Your task to perform on an android device: Search for flights from NYC to Mexico city Image 0: 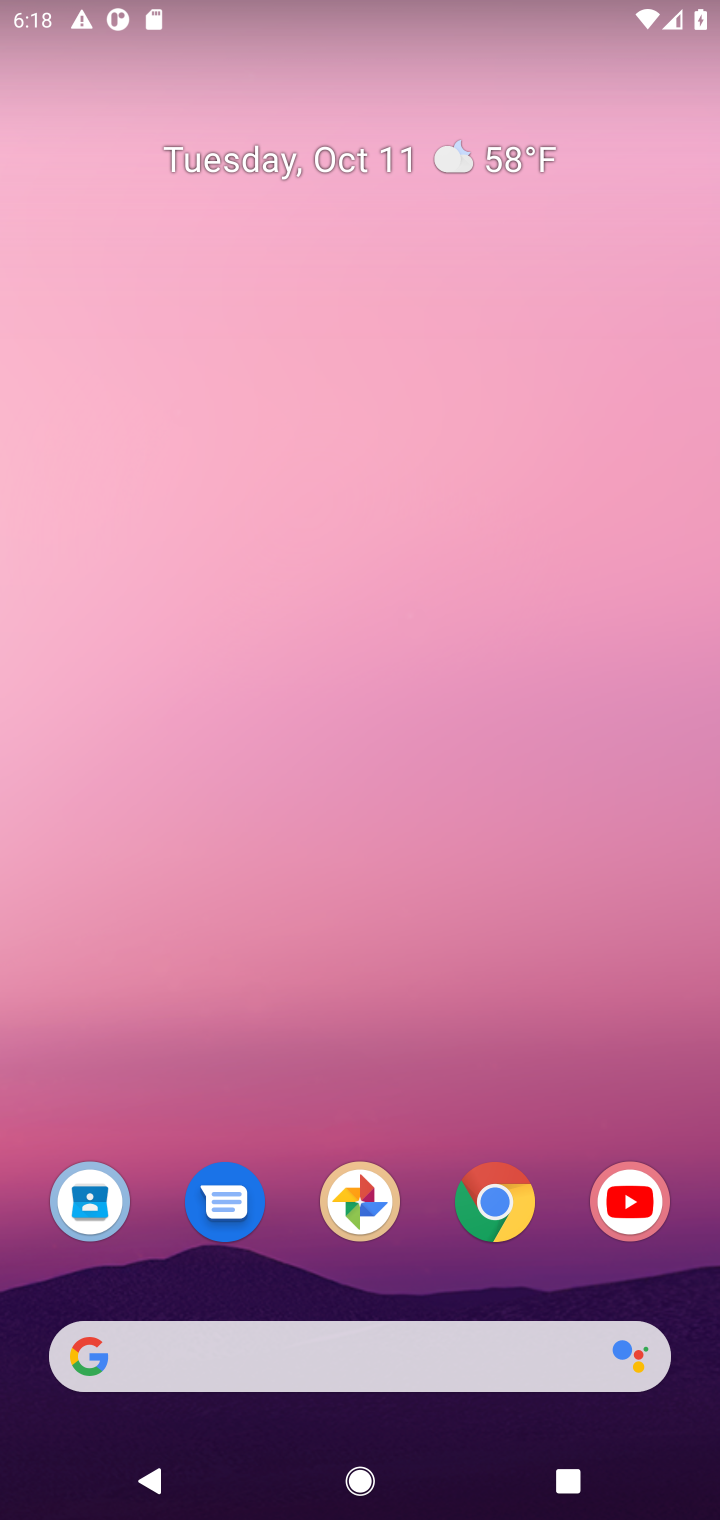
Step 0: click (520, 1207)
Your task to perform on an android device: Search for flights from NYC to Mexico city Image 1: 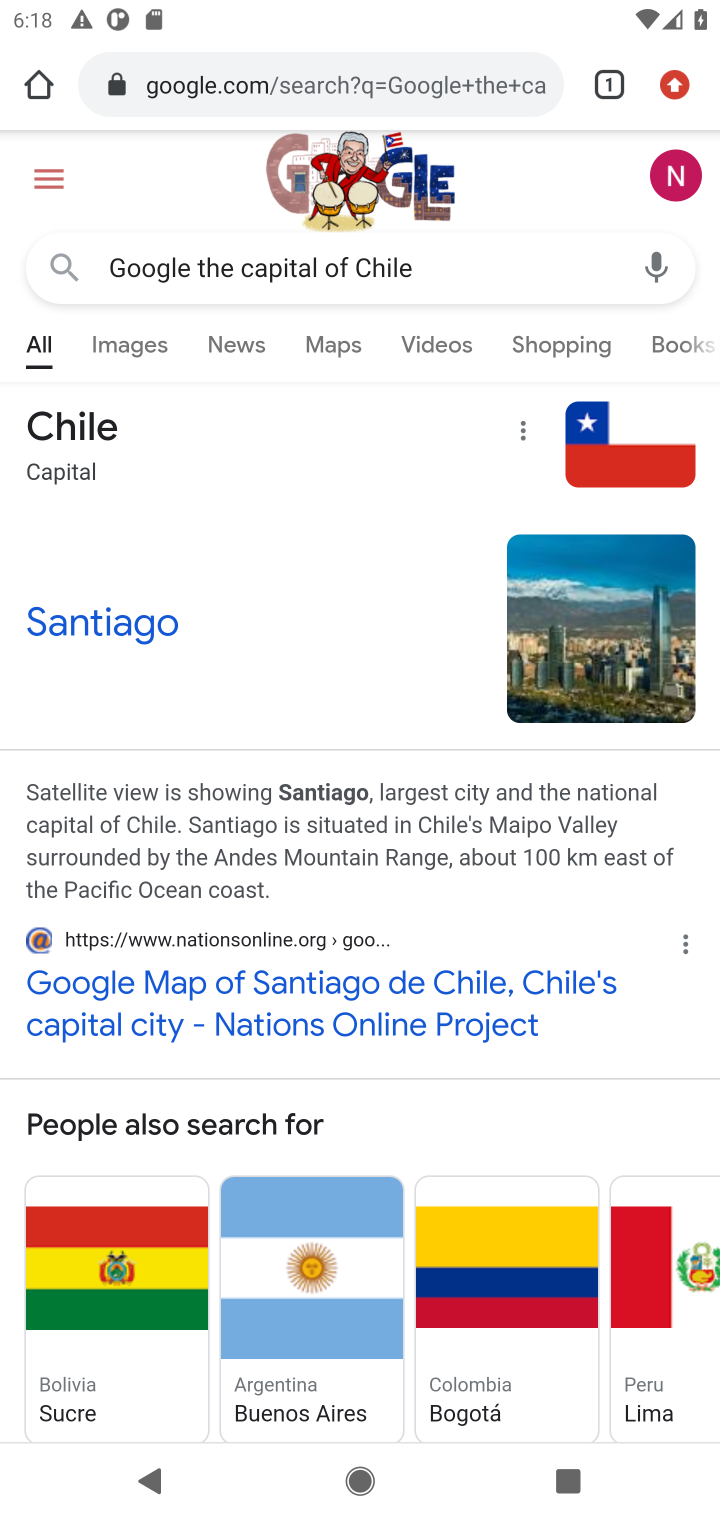
Step 1: click (260, 74)
Your task to perform on an android device: Search for flights from NYC to Mexico city Image 2: 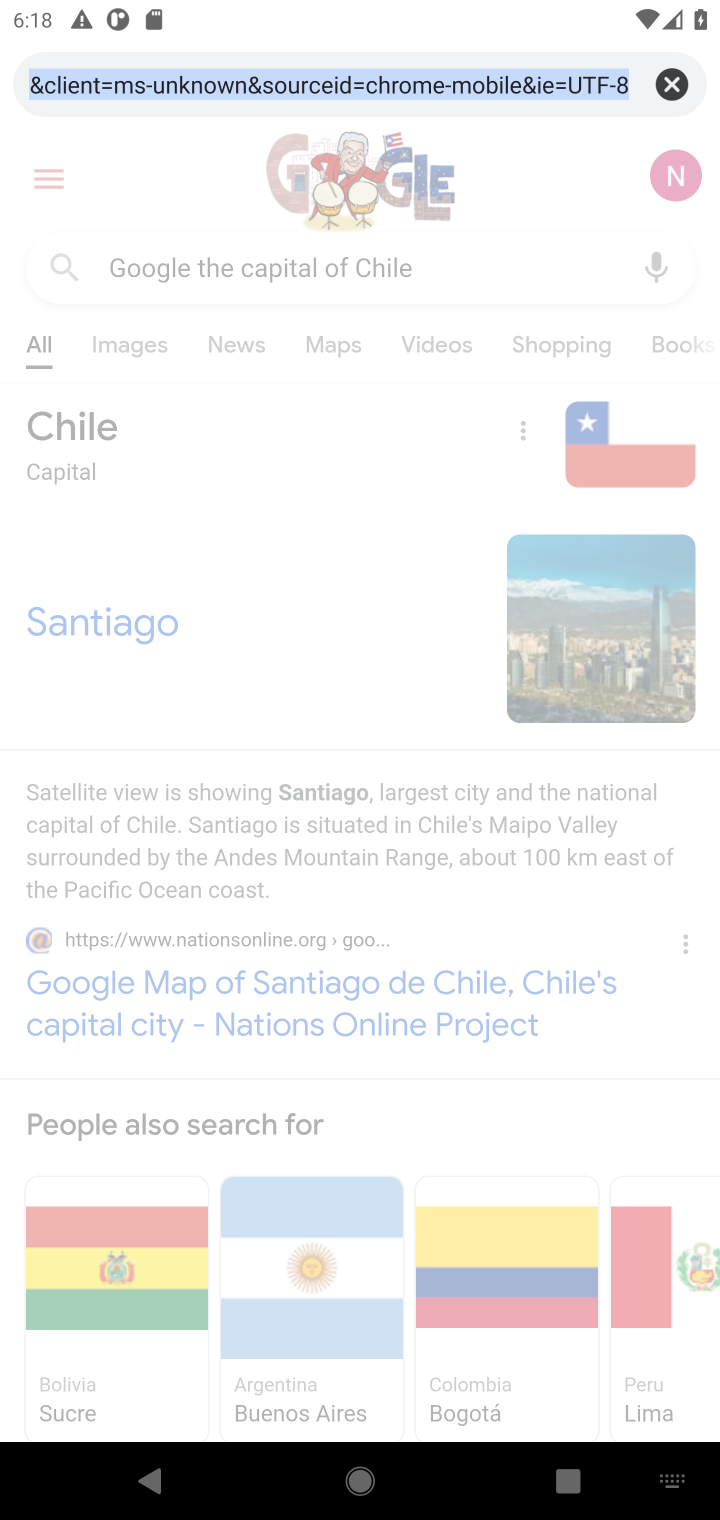
Step 2: type "nyc to mexico city flights"
Your task to perform on an android device: Search for flights from NYC to Mexico city Image 3: 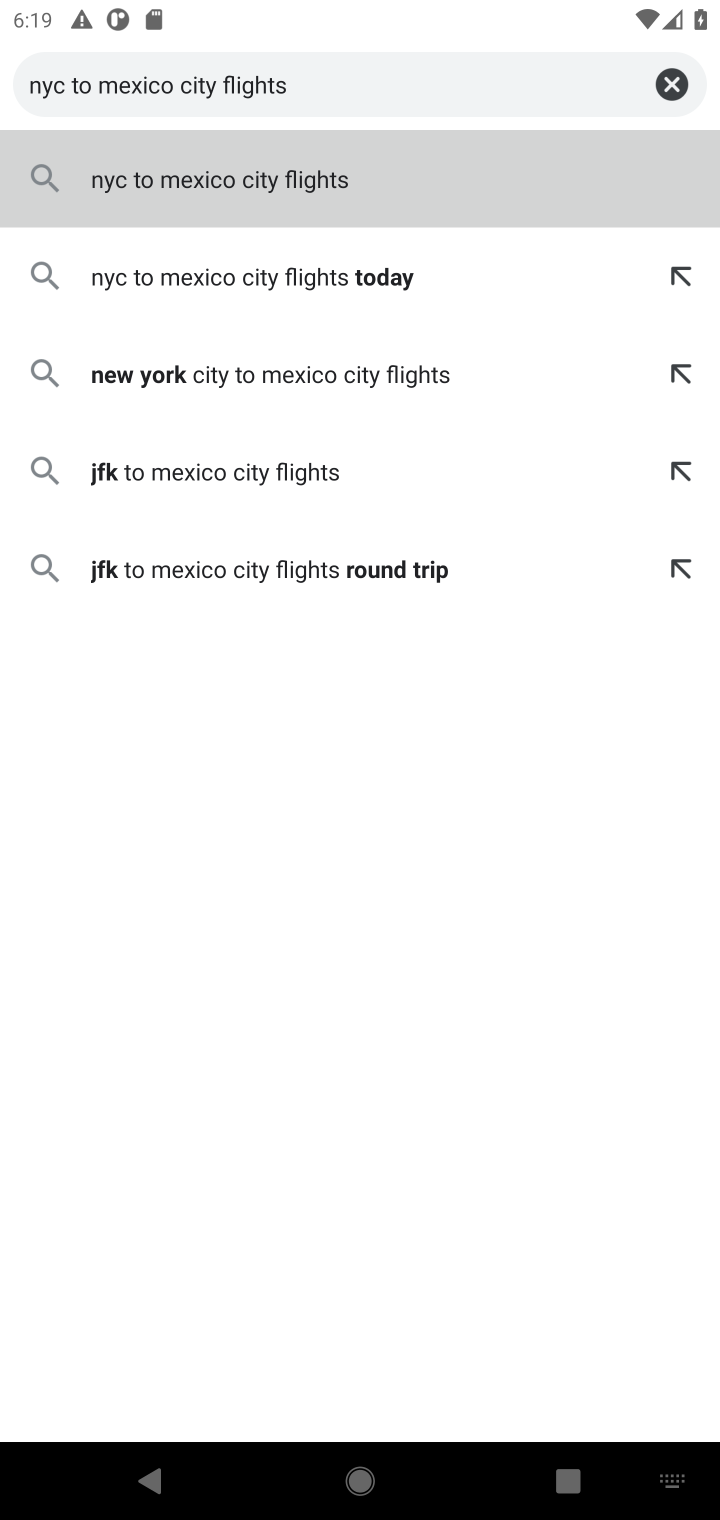
Step 3: click (318, 204)
Your task to perform on an android device: Search for flights from NYC to Mexico city Image 4: 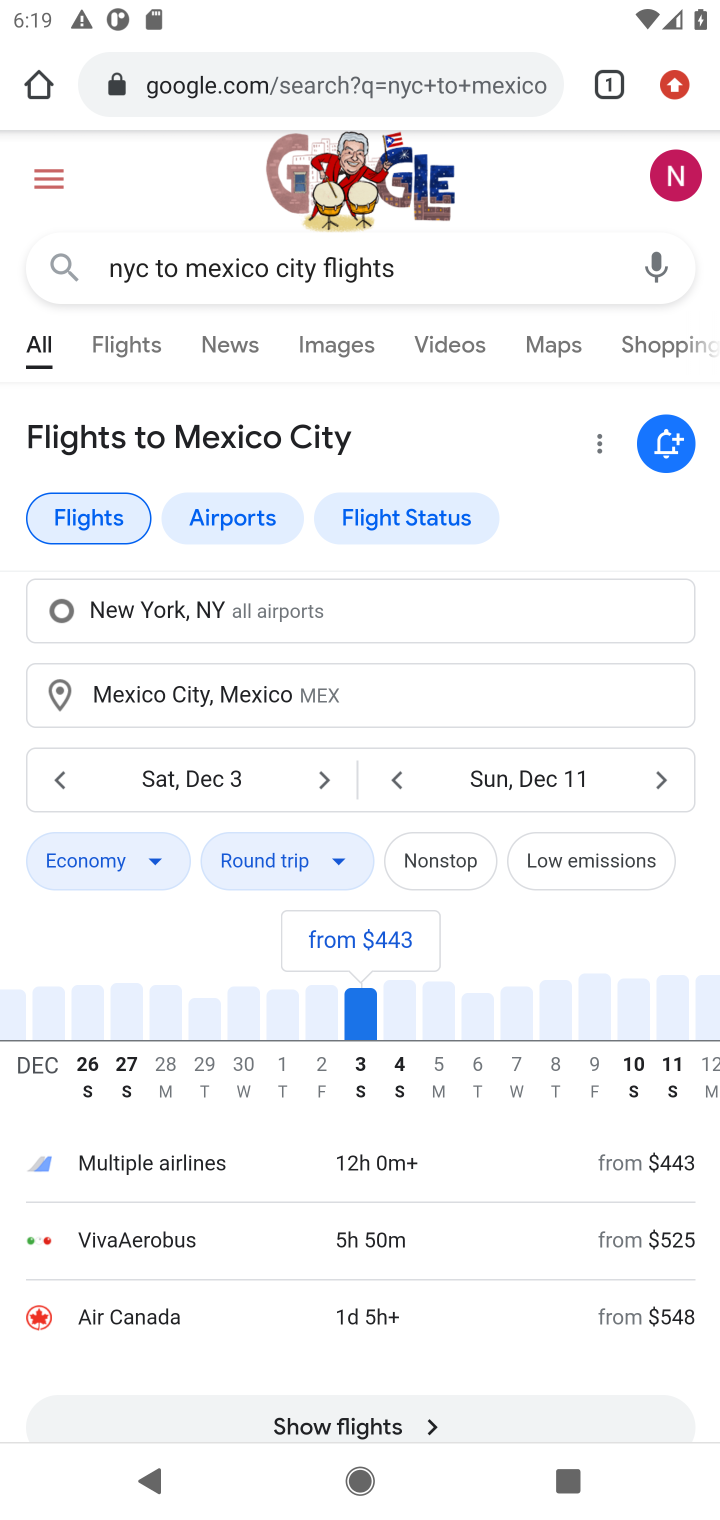
Step 4: task complete